Your task to perform on an android device: open app "Walmart Shopping & Grocery" Image 0: 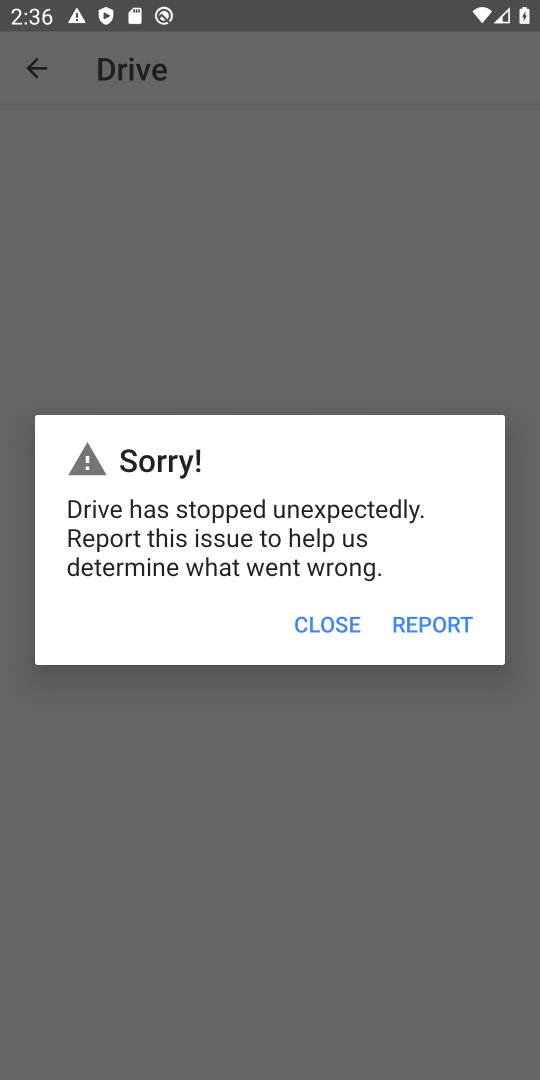
Step 0: press home button
Your task to perform on an android device: open app "Walmart Shopping & Grocery" Image 1: 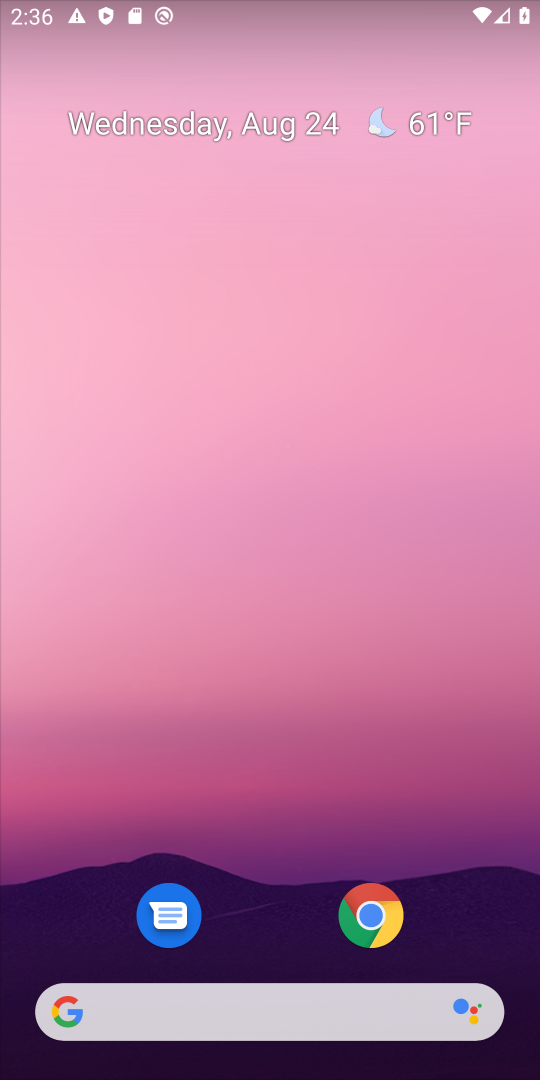
Step 1: drag from (262, 869) to (266, 284)
Your task to perform on an android device: open app "Walmart Shopping & Grocery" Image 2: 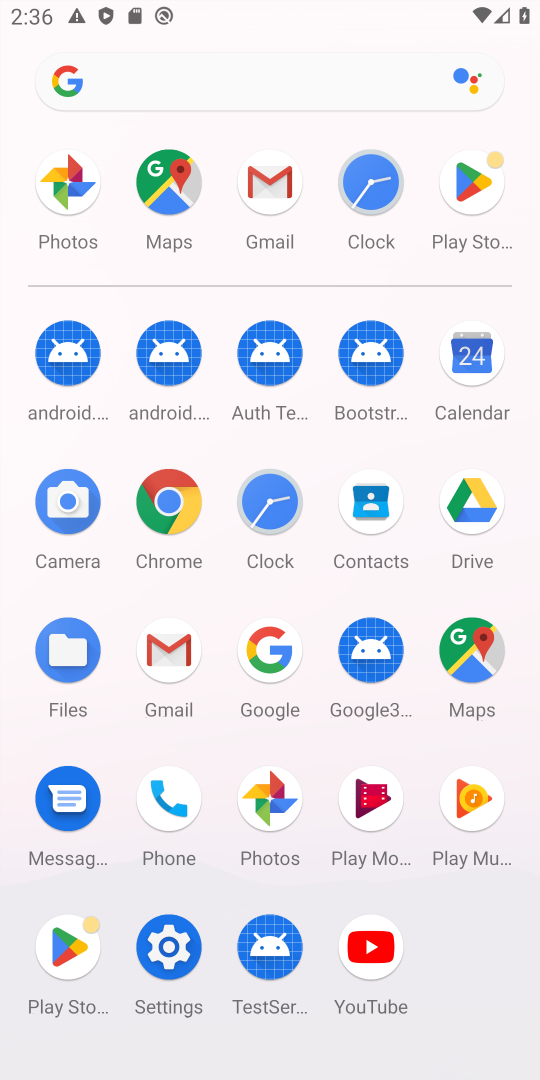
Step 2: click (465, 213)
Your task to perform on an android device: open app "Walmart Shopping & Grocery" Image 3: 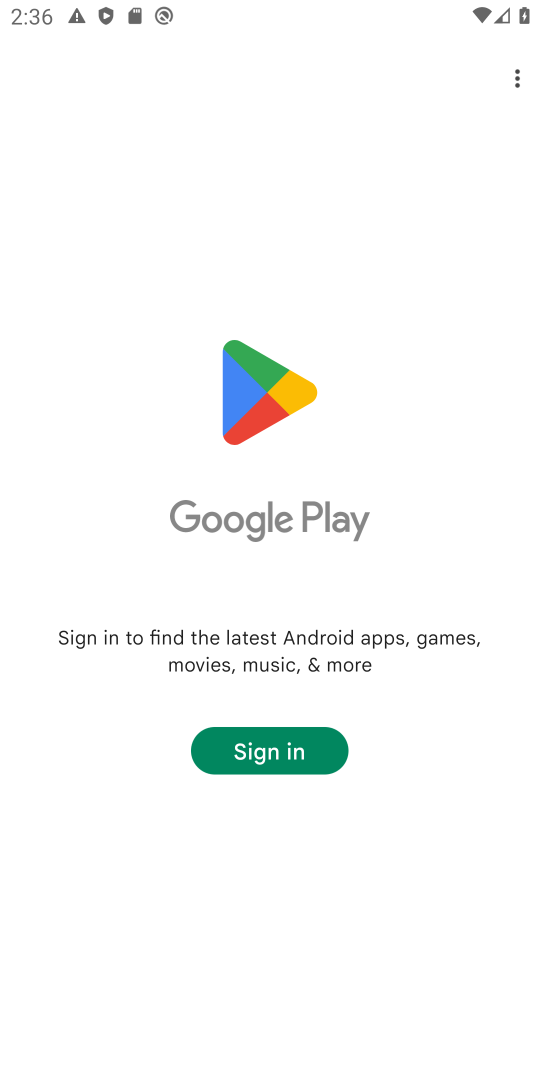
Step 3: task complete